Your task to perform on an android device: Open ESPN.com Image 0: 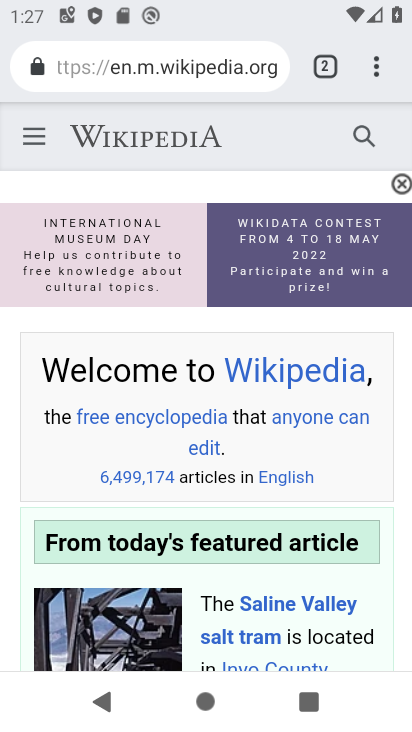
Step 0: press home button
Your task to perform on an android device: Open ESPN.com Image 1: 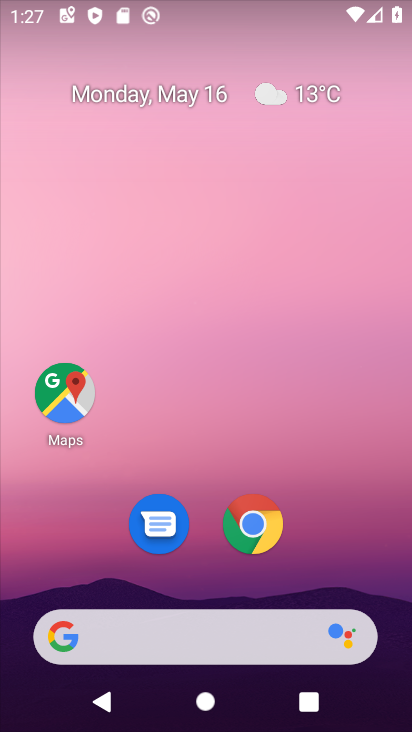
Step 1: click (248, 650)
Your task to perform on an android device: Open ESPN.com Image 2: 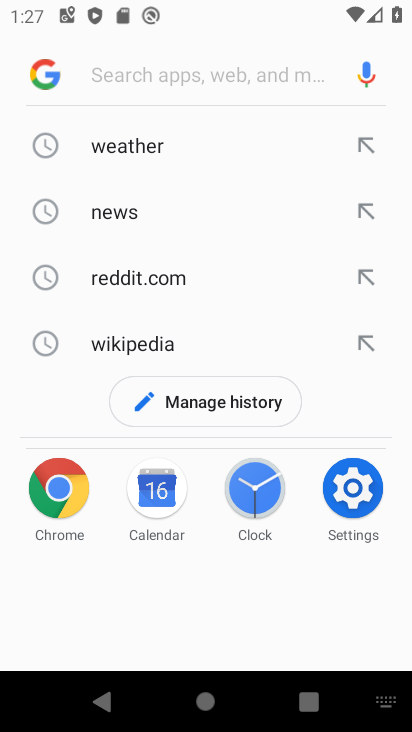
Step 2: type "espn.com"
Your task to perform on an android device: Open ESPN.com Image 3: 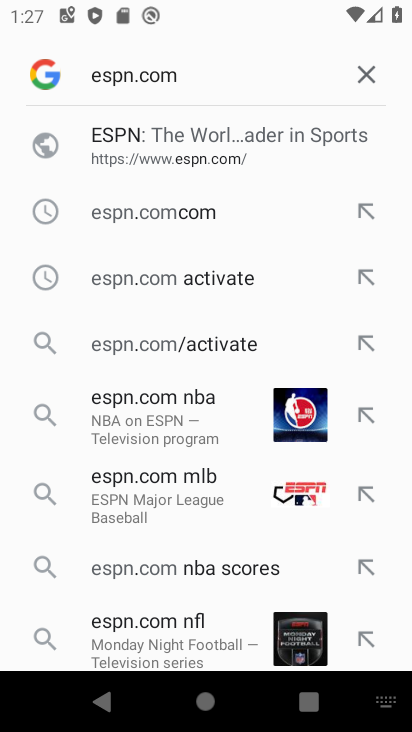
Step 3: click (144, 144)
Your task to perform on an android device: Open ESPN.com Image 4: 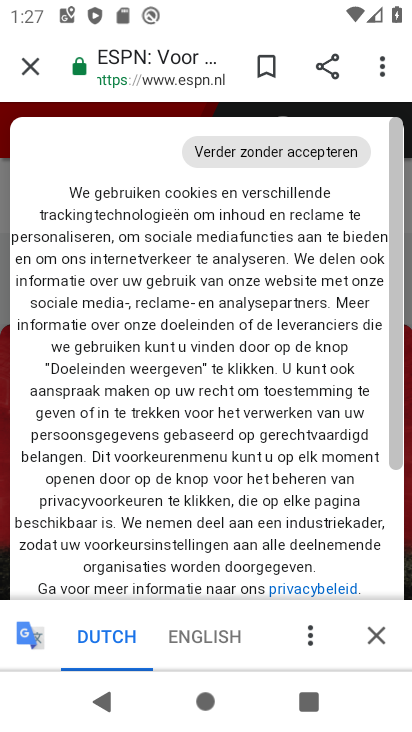
Step 4: task complete